Your task to perform on an android device: What's the weather going to be tomorrow? Image 0: 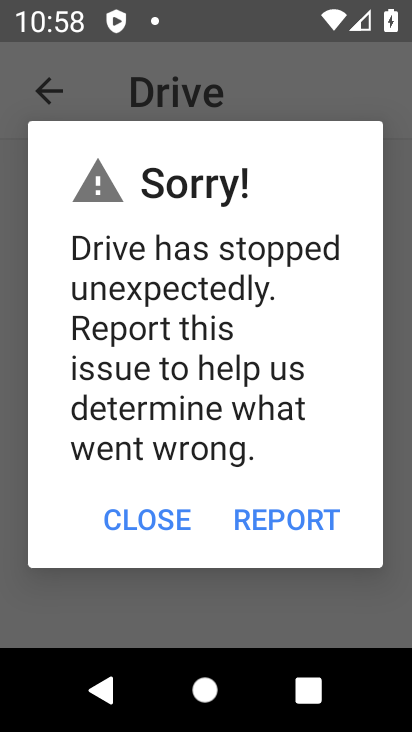
Step 0: press home button
Your task to perform on an android device: What's the weather going to be tomorrow? Image 1: 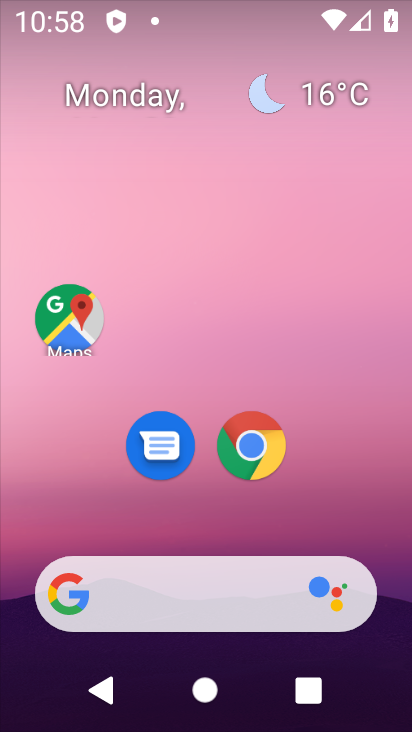
Step 1: click (261, 98)
Your task to perform on an android device: What's the weather going to be tomorrow? Image 2: 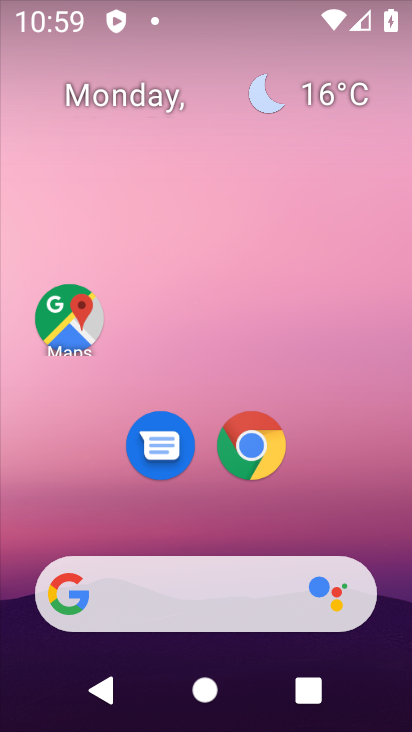
Step 2: click (319, 93)
Your task to perform on an android device: What's the weather going to be tomorrow? Image 3: 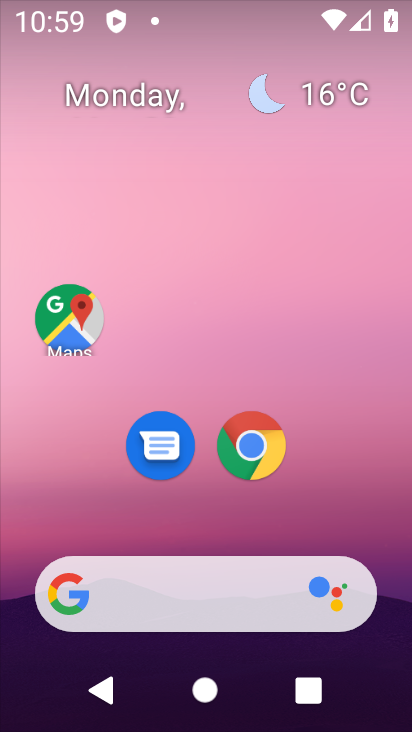
Step 3: click (299, 102)
Your task to perform on an android device: What's the weather going to be tomorrow? Image 4: 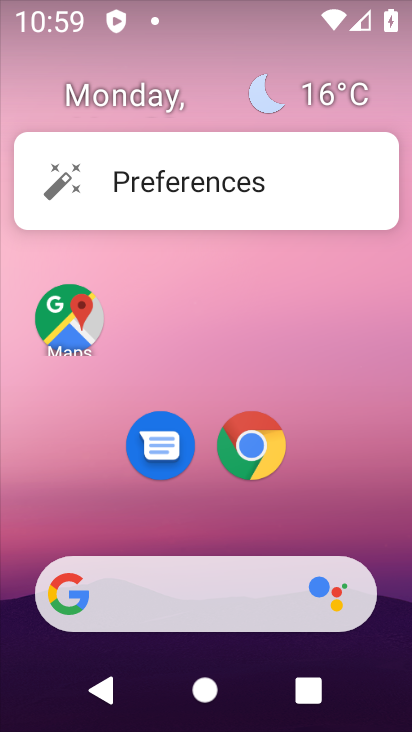
Step 4: click (299, 102)
Your task to perform on an android device: What's the weather going to be tomorrow? Image 5: 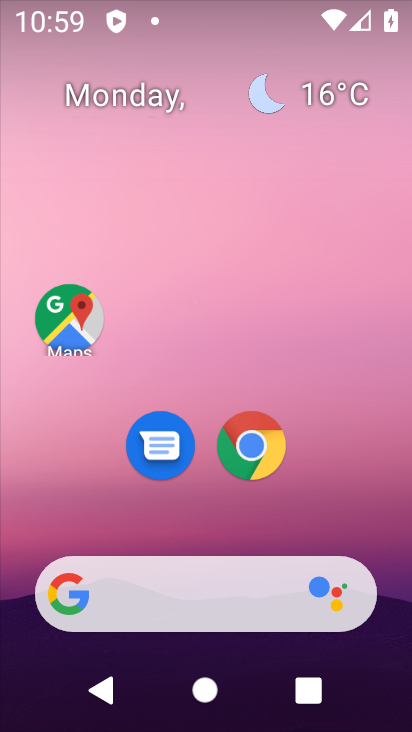
Step 5: click (334, 95)
Your task to perform on an android device: What's the weather going to be tomorrow? Image 6: 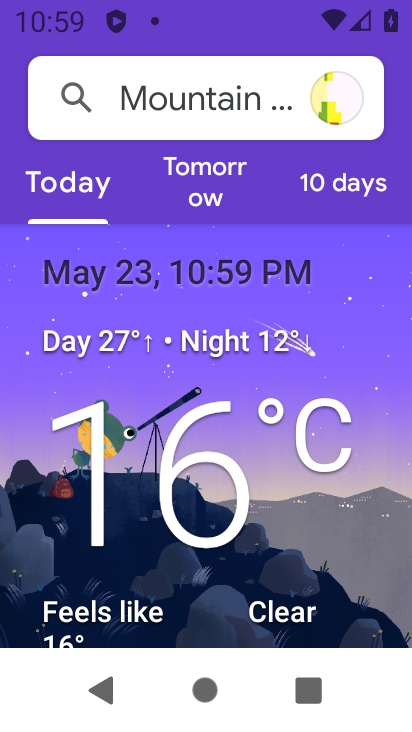
Step 6: click (225, 199)
Your task to perform on an android device: What's the weather going to be tomorrow? Image 7: 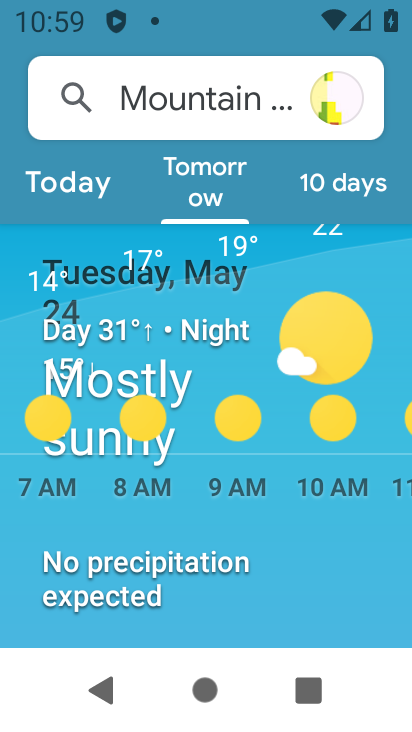
Step 7: task complete